Your task to perform on an android device: Open the web browser Image 0: 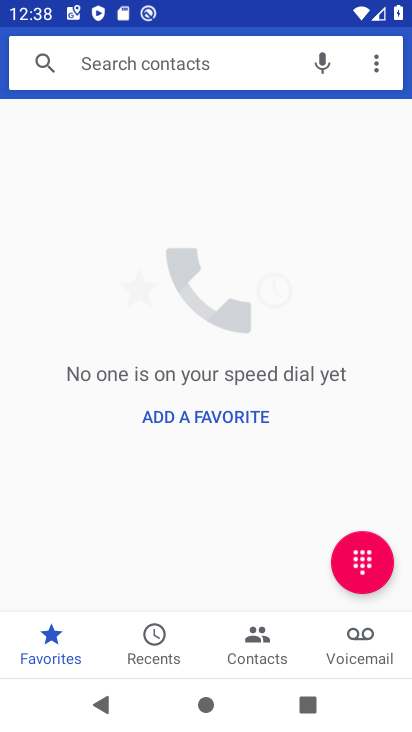
Step 0: press home button
Your task to perform on an android device: Open the web browser Image 1: 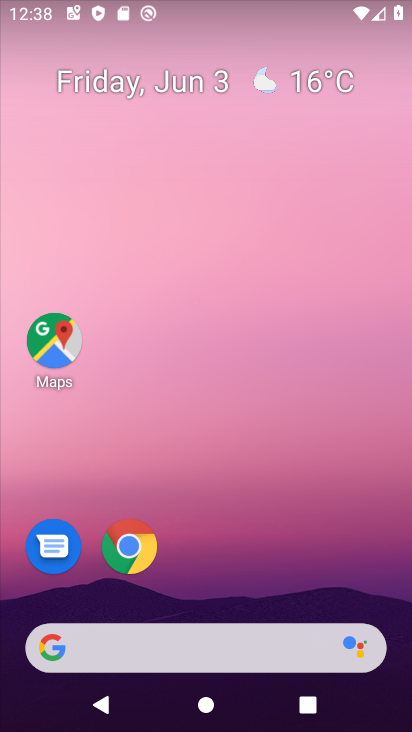
Step 1: click (122, 550)
Your task to perform on an android device: Open the web browser Image 2: 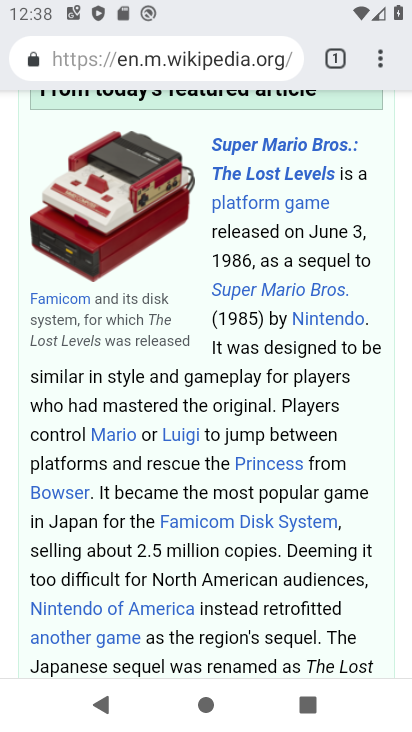
Step 2: task complete